Your task to perform on an android device: What's the weather? Image 0: 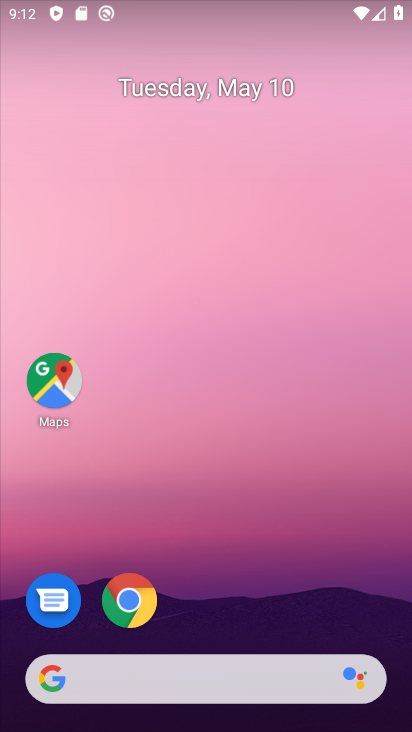
Step 0: drag from (234, 597) to (179, 112)
Your task to perform on an android device: What's the weather? Image 1: 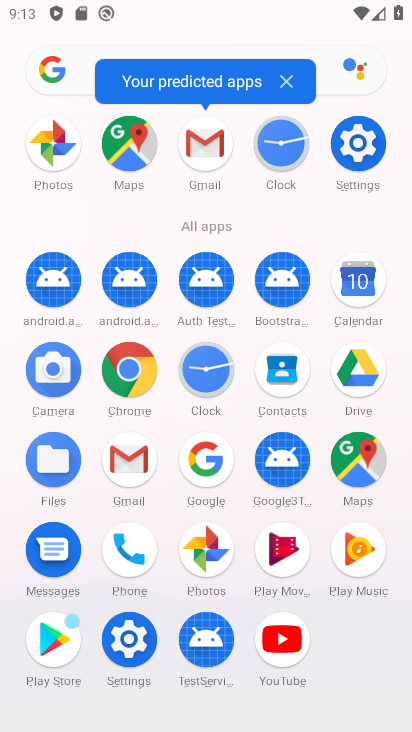
Step 1: click (198, 466)
Your task to perform on an android device: What's the weather? Image 2: 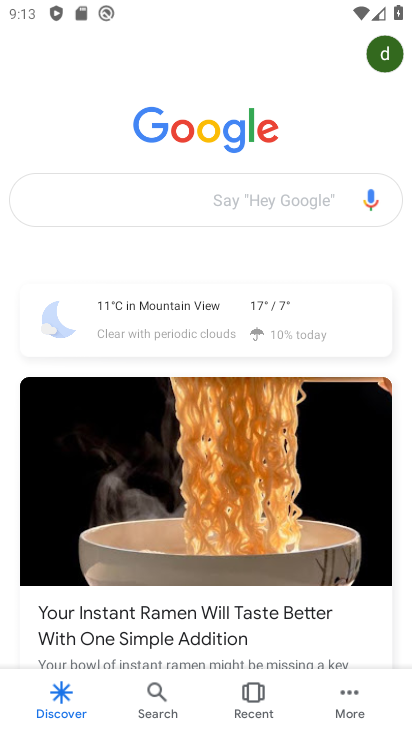
Step 2: click (259, 303)
Your task to perform on an android device: What's the weather? Image 3: 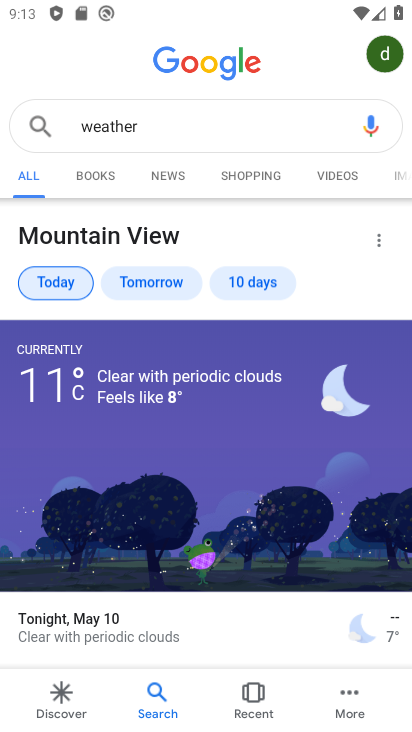
Step 3: task complete